Your task to perform on an android device: check the backup settings in the google photos Image 0: 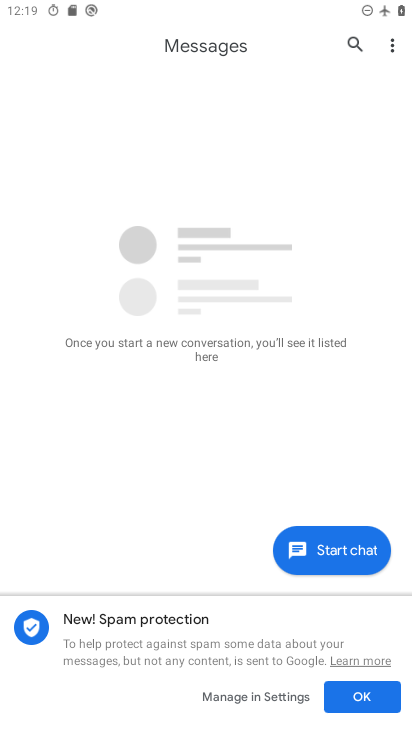
Step 0: press home button
Your task to perform on an android device: check the backup settings in the google photos Image 1: 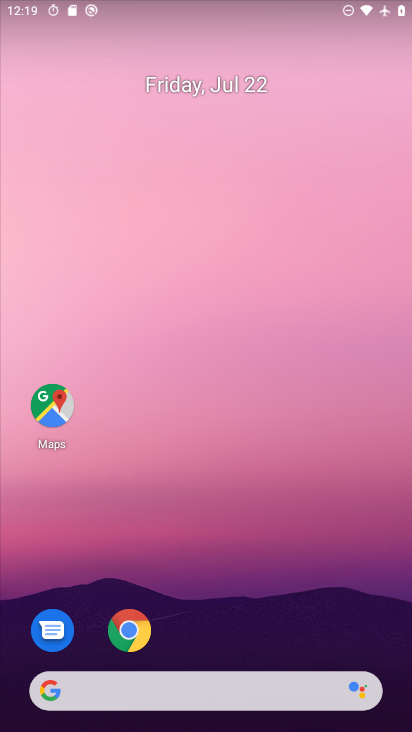
Step 1: drag from (216, 639) to (203, 152)
Your task to perform on an android device: check the backup settings in the google photos Image 2: 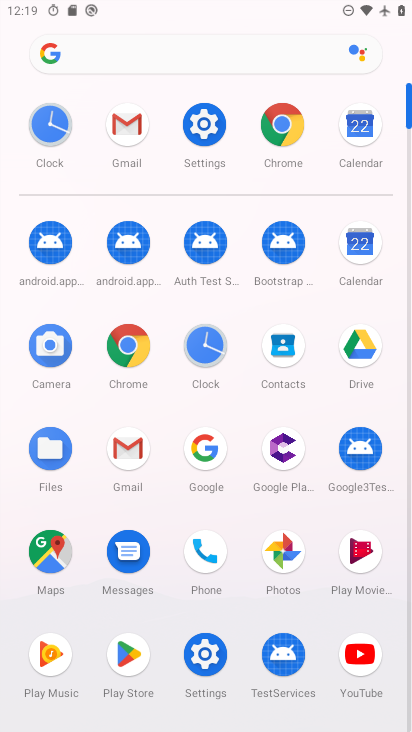
Step 2: click (278, 545)
Your task to perform on an android device: check the backup settings in the google photos Image 3: 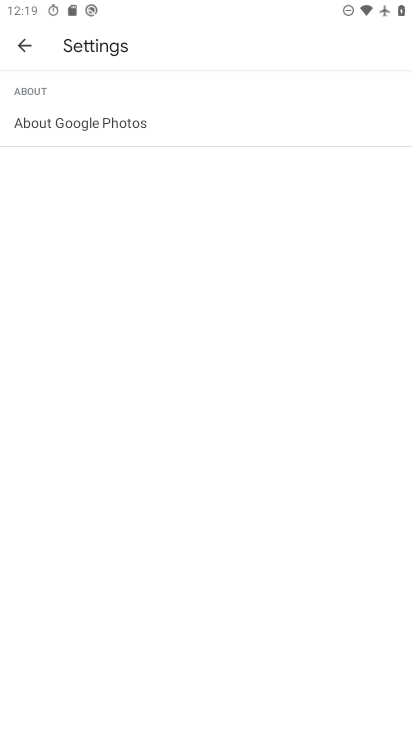
Step 3: click (16, 51)
Your task to perform on an android device: check the backup settings in the google photos Image 4: 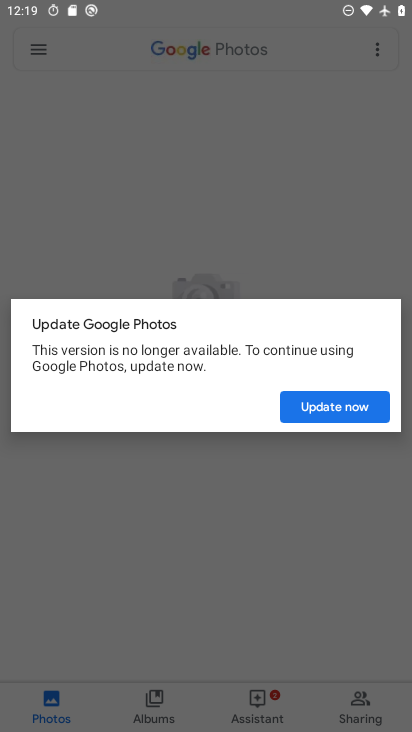
Step 4: click (363, 412)
Your task to perform on an android device: check the backup settings in the google photos Image 5: 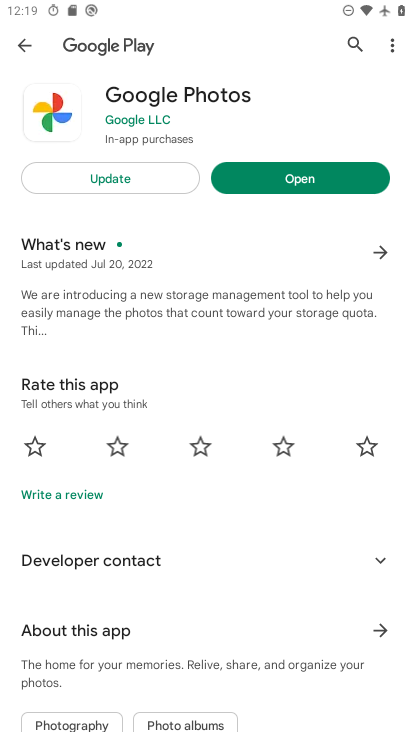
Step 5: click (136, 190)
Your task to perform on an android device: check the backup settings in the google photos Image 6: 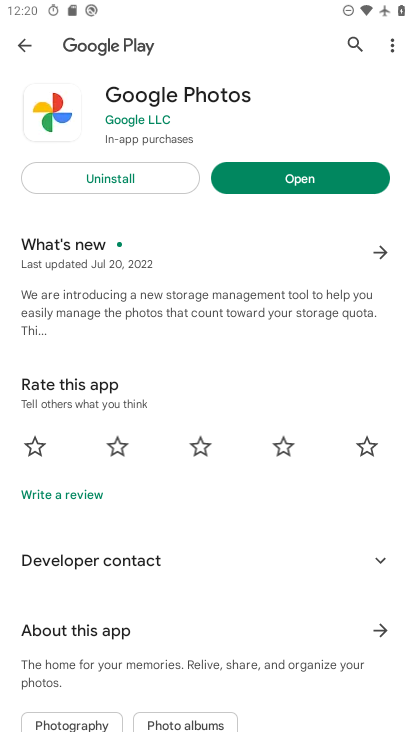
Step 6: click (313, 173)
Your task to perform on an android device: check the backup settings in the google photos Image 7: 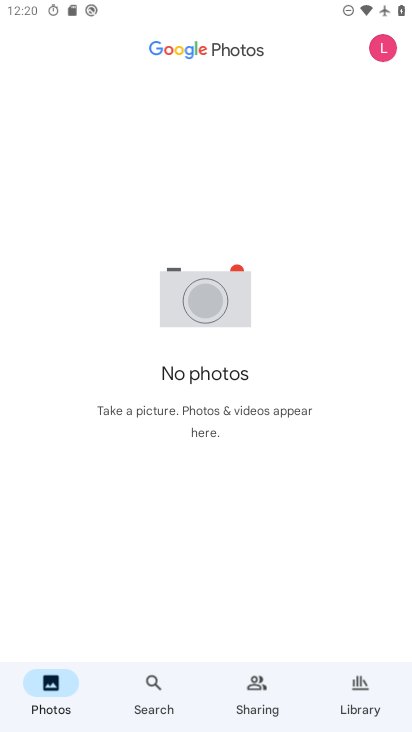
Step 7: click (376, 52)
Your task to perform on an android device: check the backup settings in the google photos Image 8: 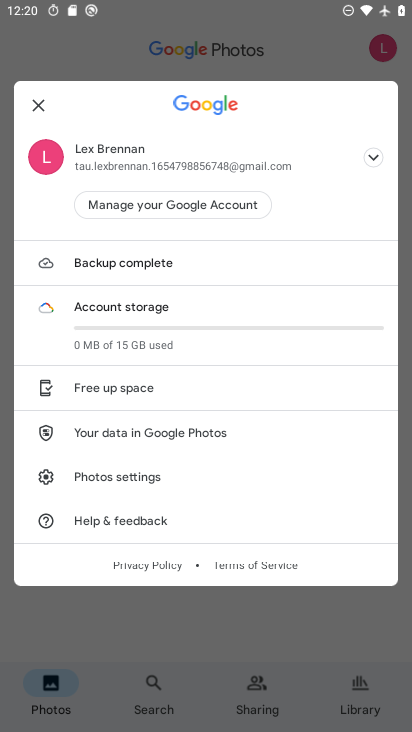
Step 8: click (103, 476)
Your task to perform on an android device: check the backup settings in the google photos Image 9: 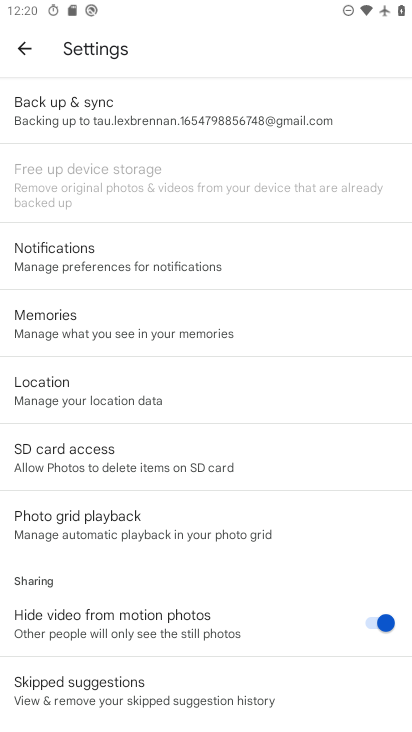
Step 9: click (24, 112)
Your task to perform on an android device: check the backup settings in the google photos Image 10: 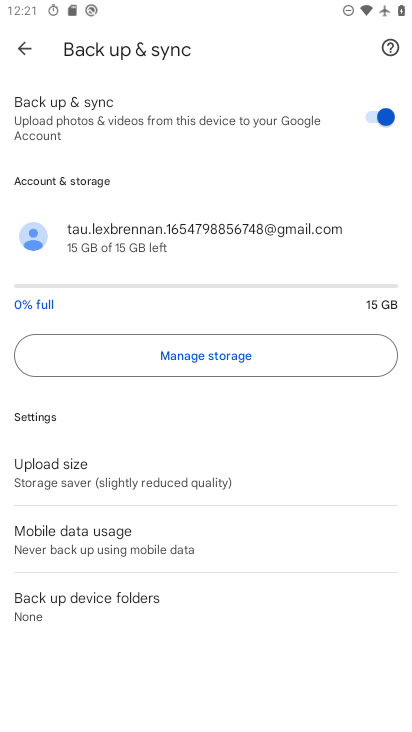
Step 10: task complete